Your task to perform on an android device: Search for seafood restaurants on Google Maps Image 0: 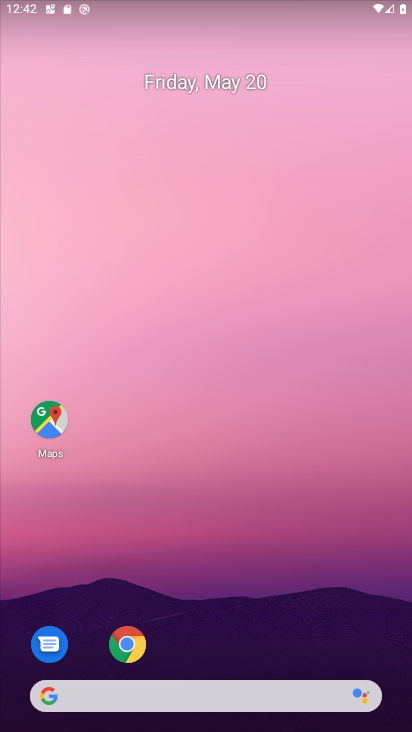
Step 0: click (58, 417)
Your task to perform on an android device: Search for seafood restaurants on Google Maps Image 1: 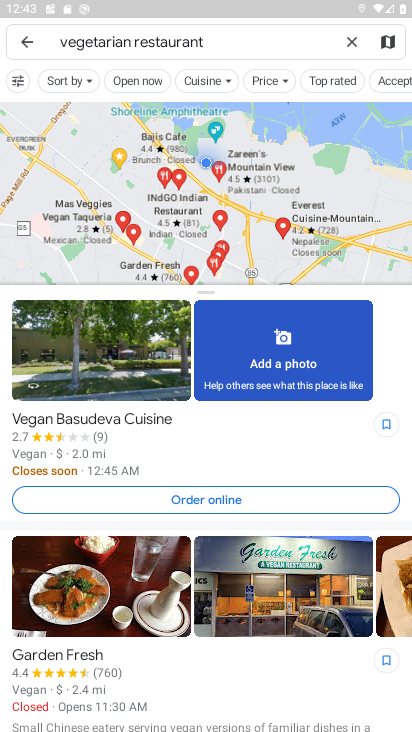
Step 1: click (355, 42)
Your task to perform on an android device: Search for seafood restaurants on Google Maps Image 2: 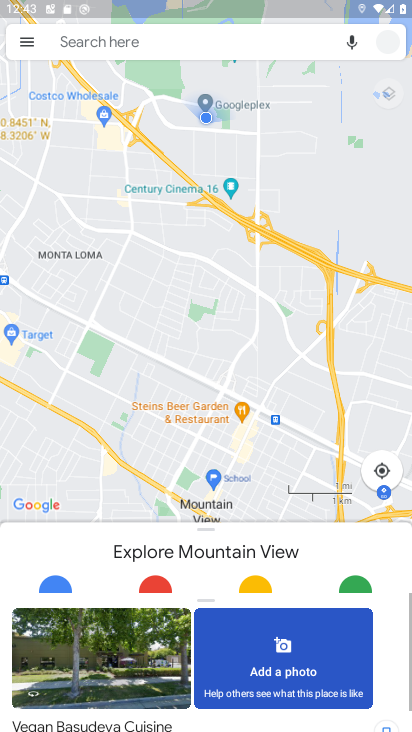
Step 2: click (252, 41)
Your task to perform on an android device: Search for seafood restaurants on Google Maps Image 3: 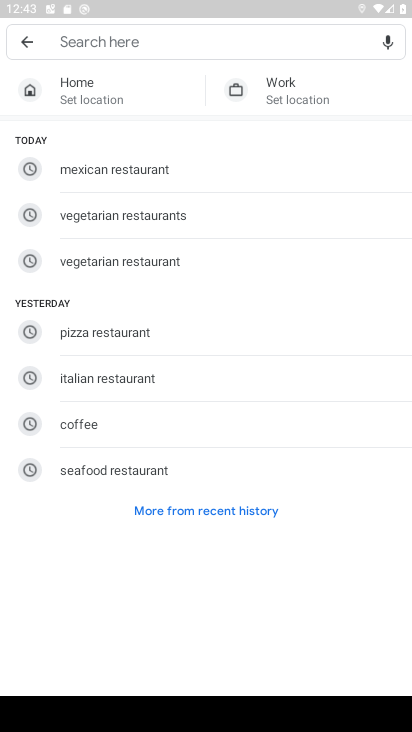
Step 3: click (121, 471)
Your task to perform on an android device: Search for seafood restaurants on Google Maps Image 4: 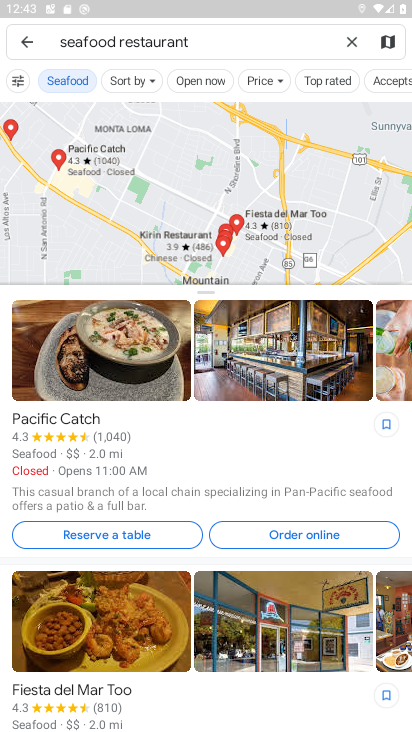
Step 4: task complete